Your task to perform on an android device: Open Android settings Image 0: 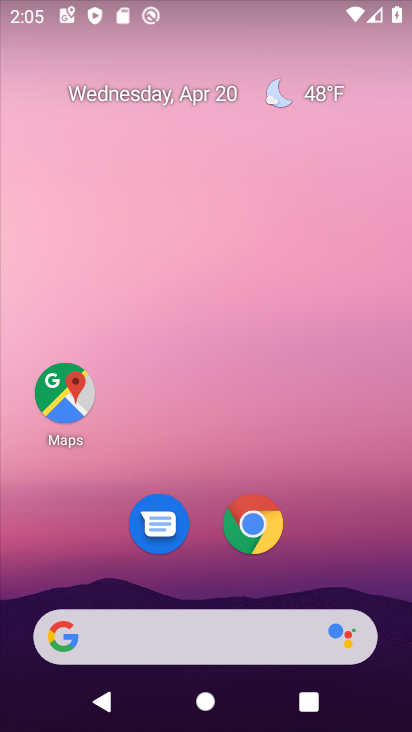
Step 0: drag from (315, 513) to (357, 110)
Your task to perform on an android device: Open Android settings Image 1: 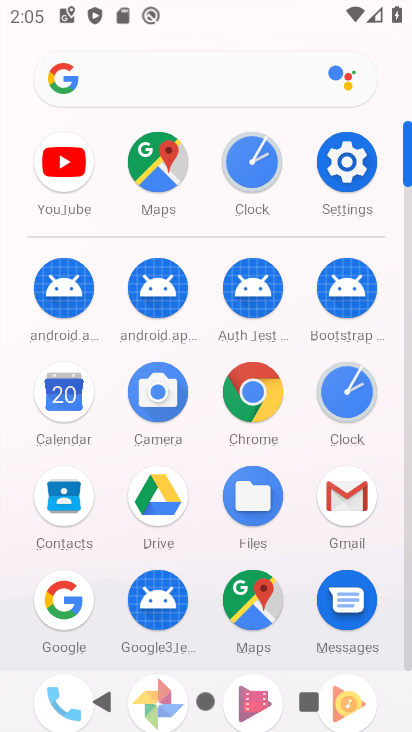
Step 1: click (347, 162)
Your task to perform on an android device: Open Android settings Image 2: 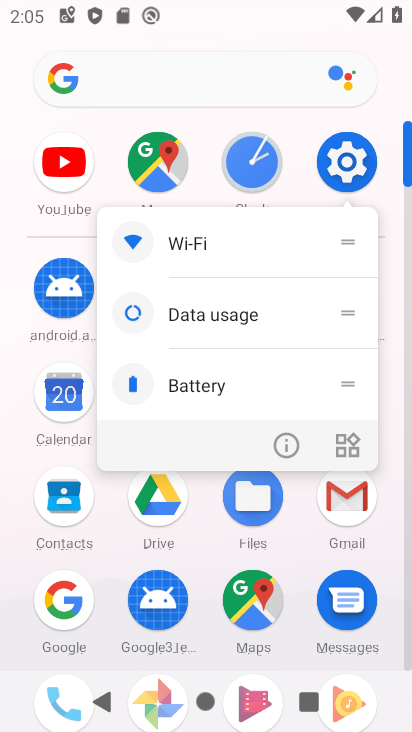
Step 2: click (349, 166)
Your task to perform on an android device: Open Android settings Image 3: 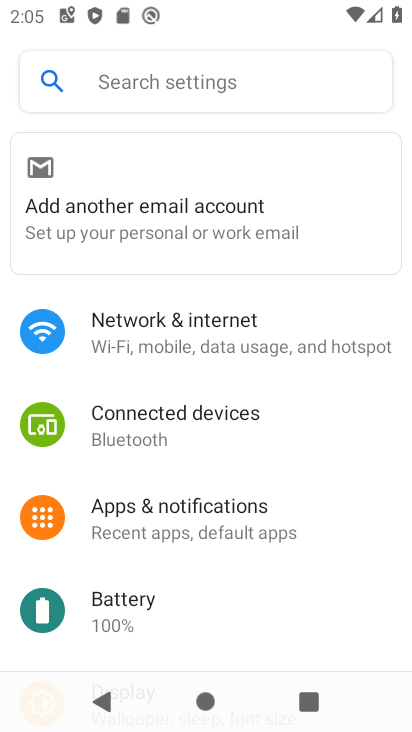
Step 3: task complete